Your task to perform on an android device: toggle notification dots Image 0: 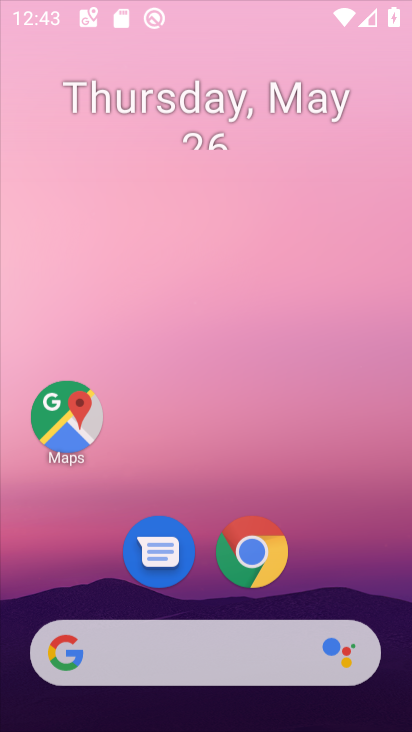
Step 0: press home button
Your task to perform on an android device: toggle notification dots Image 1: 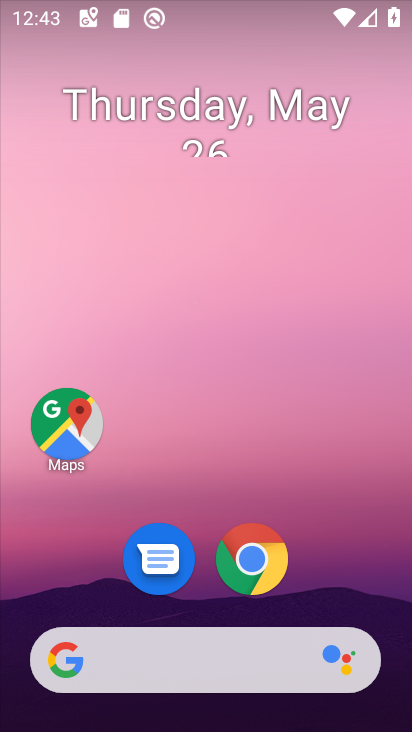
Step 1: drag from (330, 599) to (349, 107)
Your task to perform on an android device: toggle notification dots Image 2: 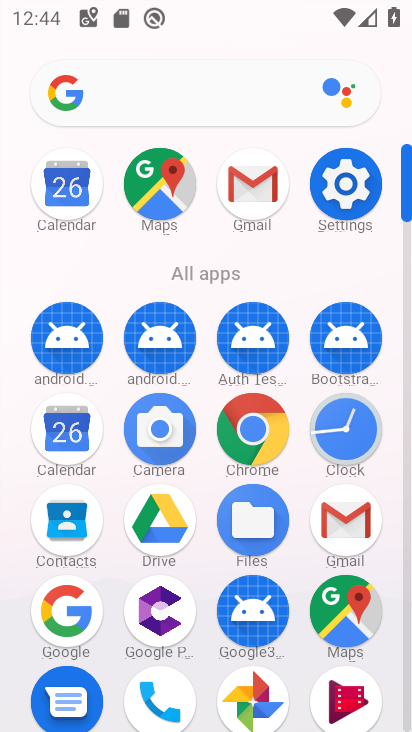
Step 2: click (346, 201)
Your task to perform on an android device: toggle notification dots Image 3: 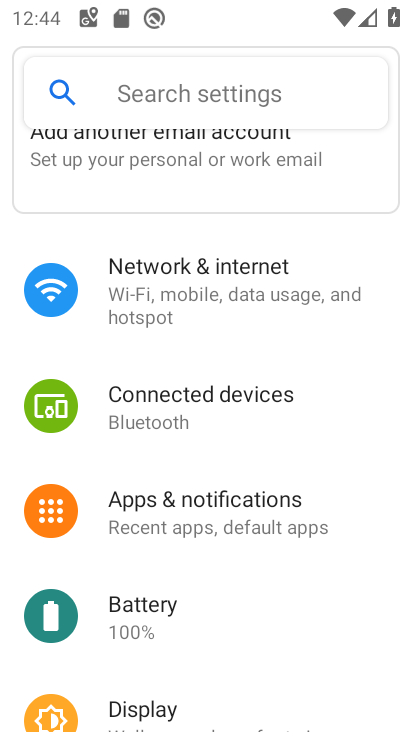
Step 3: click (174, 507)
Your task to perform on an android device: toggle notification dots Image 4: 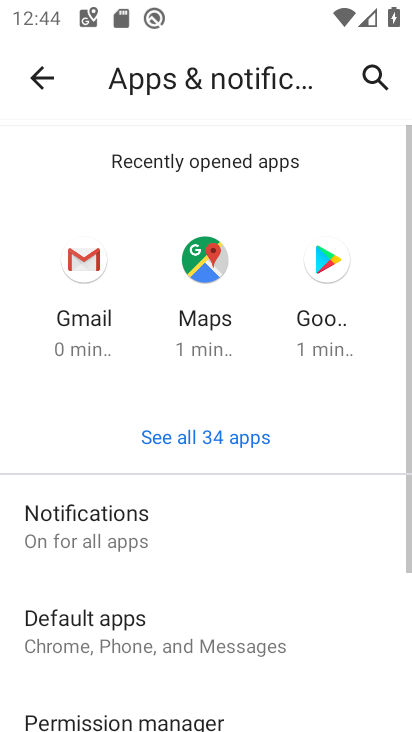
Step 4: click (93, 518)
Your task to perform on an android device: toggle notification dots Image 5: 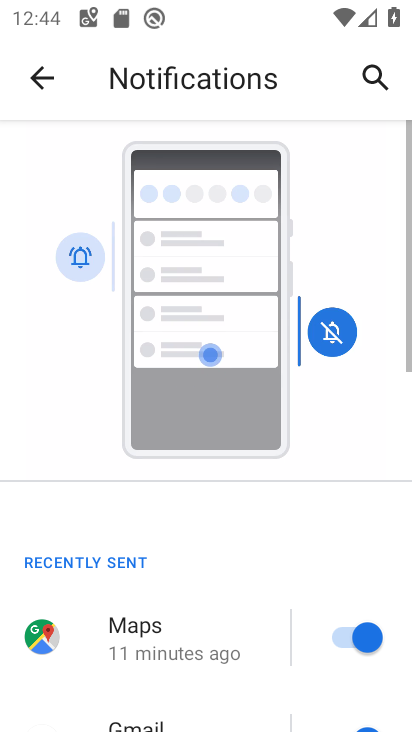
Step 5: drag from (304, 552) to (348, 14)
Your task to perform on an android device: toggle notification dots Image 6: 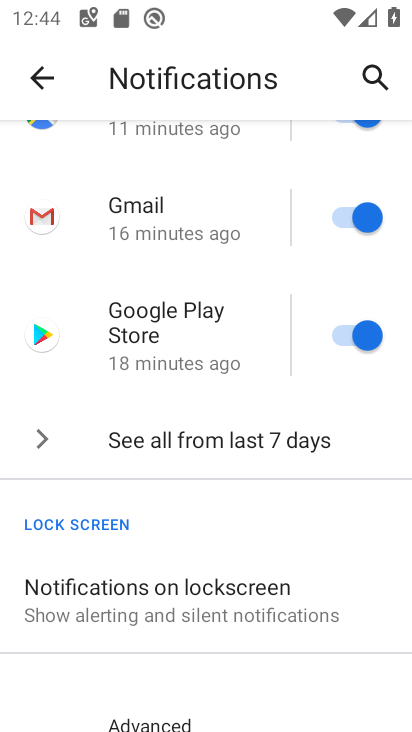
Step 6: drag from (252, 559) to (292, 143)
Your task to perform on an android device: toggle notification dots Image 7: 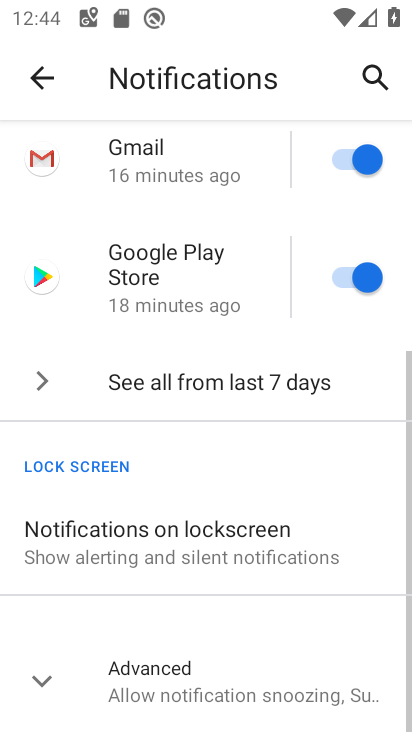
Step 7: click (156, 675)
Your task to perform on an android device: toggle notification dots Image 8: 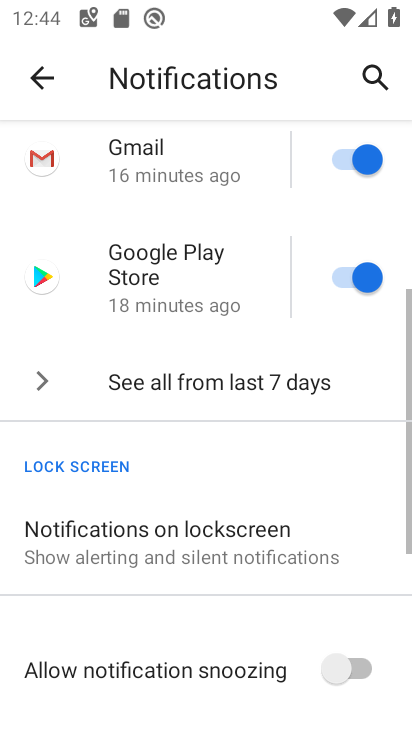
Step 8: drag from (300, 631) to (280, 110)
Your task to perform on an android device: toggle notification dots Image 9: 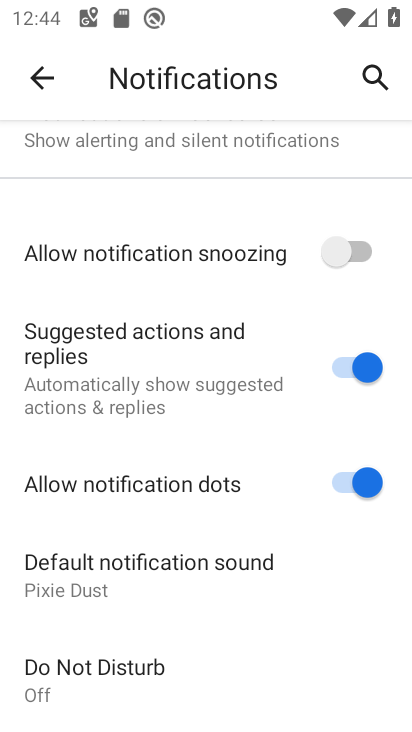
Step 9: click (361, 483)
Your task to perform on an android device: toggle notification dots Image 10: 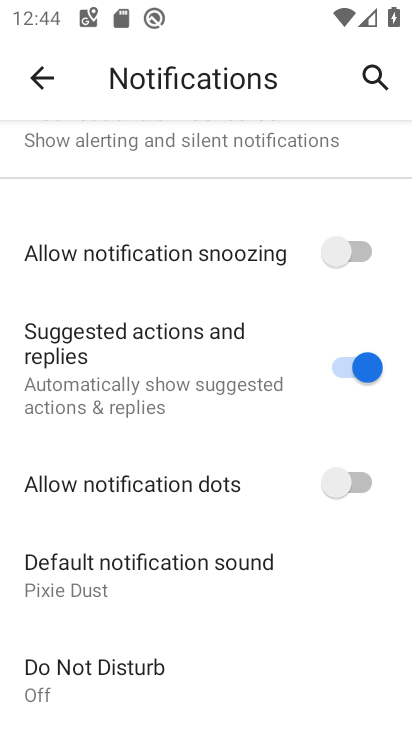
Step 10: task complete